Your task to perform on an android device: Go to Google Image 0: 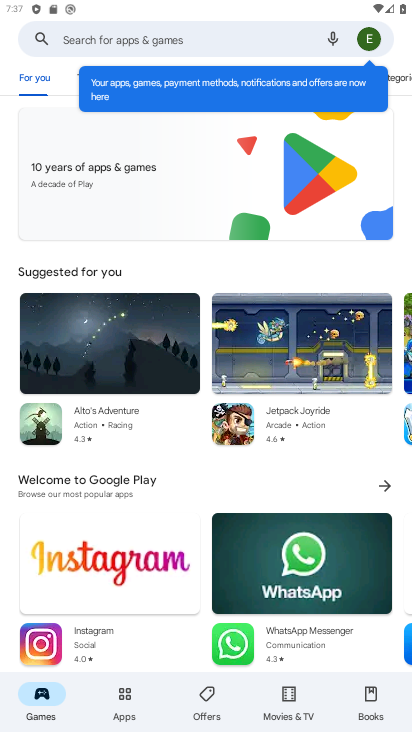
Step 0: press back button
Your task to perform on an android device: Go to Google Image 1: 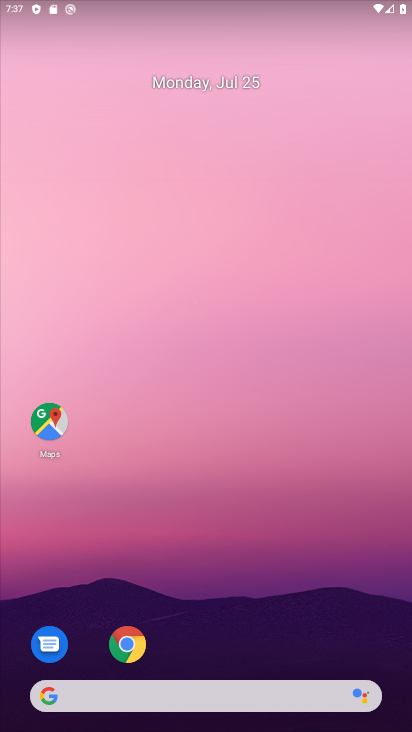
Step 1: click (165, 700)
Your task to perform on an android device: Go to Google Image 2: 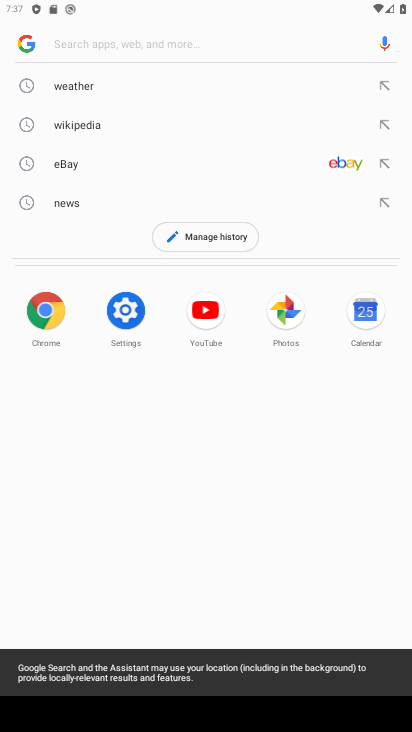
Step 2: task complete